Your task to perform on an android device: allow notifications from all sites in the chrome app Image 0: 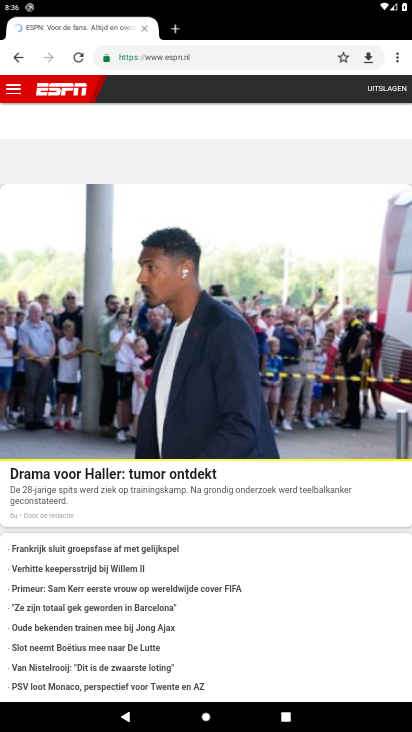
Step 0: press home button
Your task to perform on an android device: allow notifications from all sites in the chrome app Image 1: 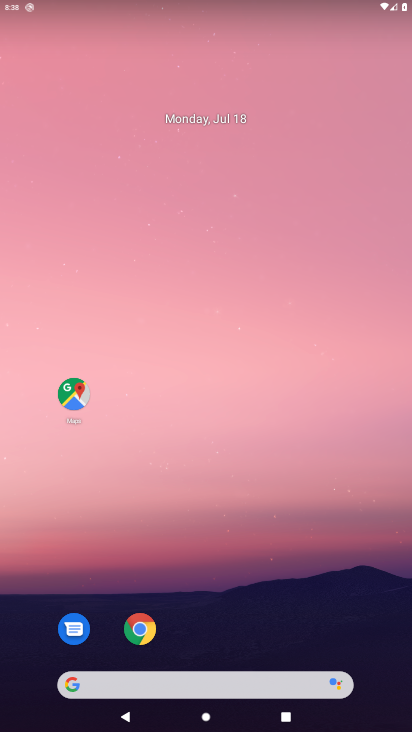
Step 1: task complete